Your task to perform on an android device: What's the weather? Image 0: 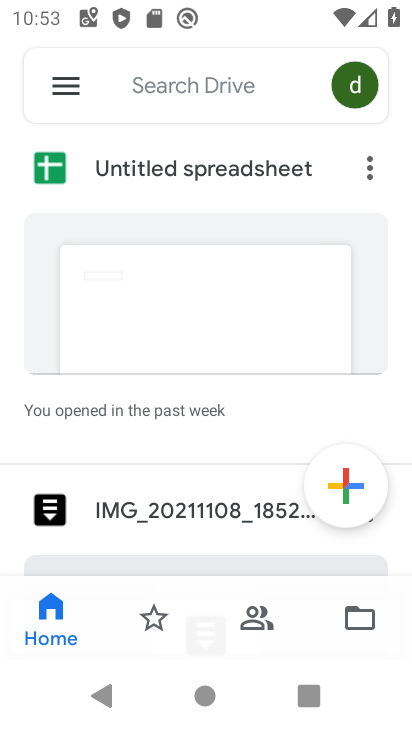
Step 0: press home button
Your task to perform on an android device: What's the weather? Image 1: 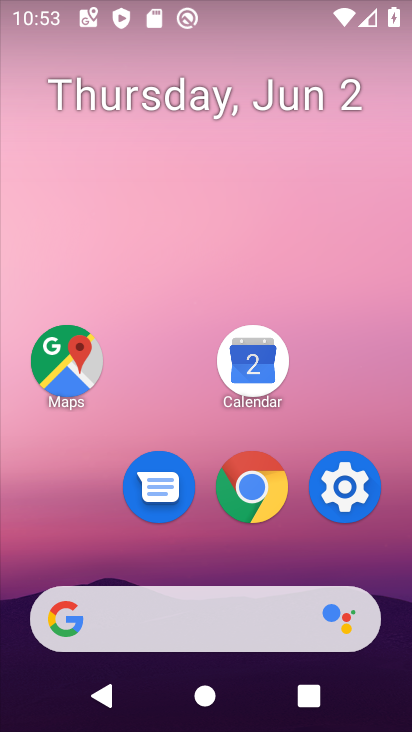
Step 1: drag from (250, 644) to (219, 140)
Your task to perform on an android device: What's the weather? Image 2: 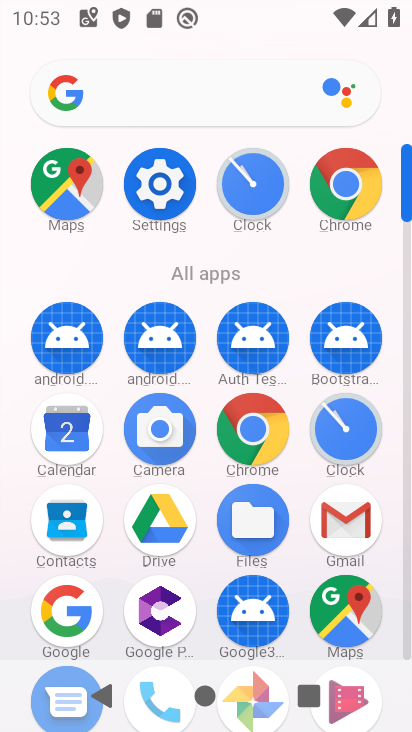
Step 2: click (160, 98)
Your task to perform on an android device: What's the weather? Image 3: 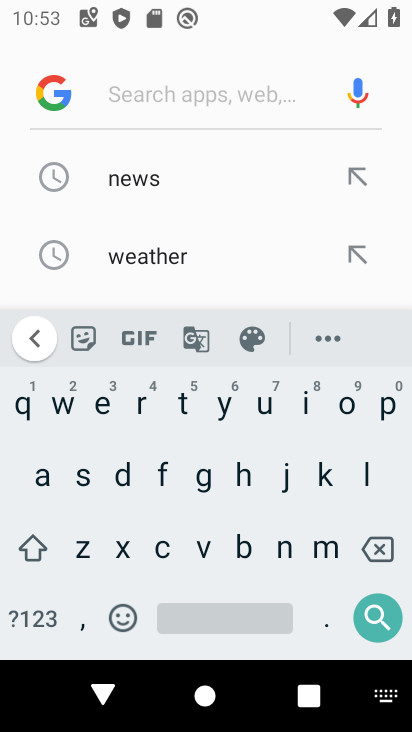
Step 3: click (142, 249)
Your task to perform on an android device: What's the weather? Image 4: 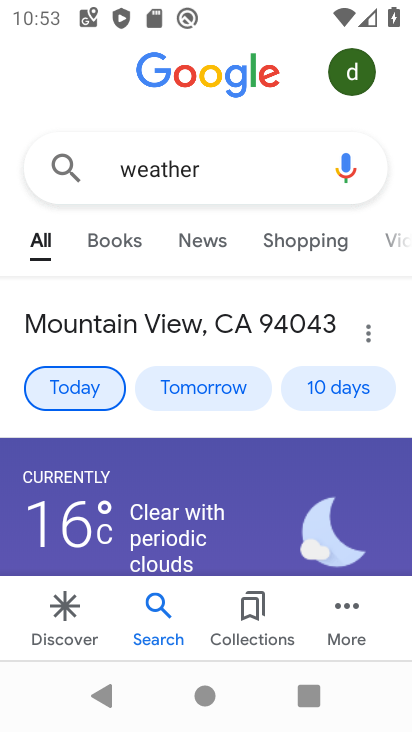
Step 4: task complete